Your task to perform on an android device: Go to eBay Image 0: 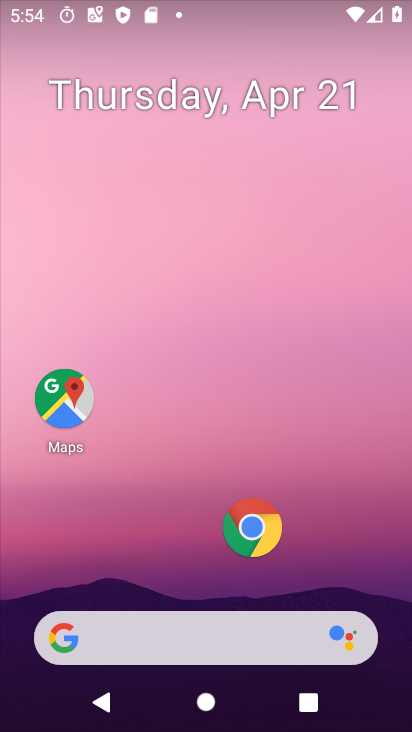
Step 0: click (173, 642)
Your task to perform on an android device: Go to eBay Image 1: 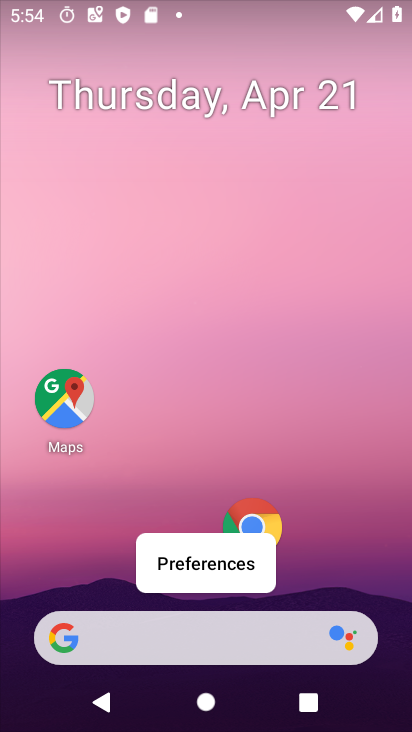
Step 1: click (262, 520)
Your task to perform on an android device: Go to eBay Image 2: 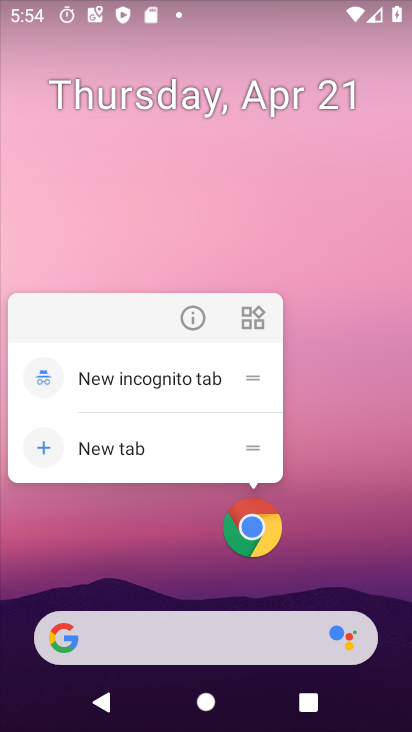
Step 2: click (254, 516)
Your task to perform on an android device: Go to eBay Image 3: 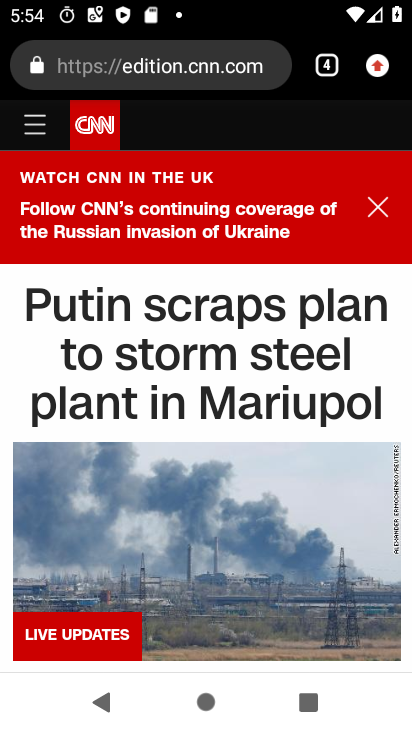
Step 3: click (330, 60)
Your task to perform on an android device: Go to eBay Image 4: 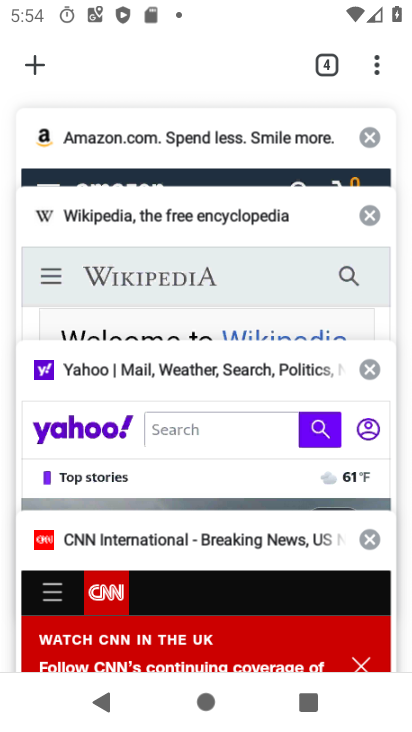
Step 4: click (41, 67)
Your task to perform on an android device: Go to eBay Image 5: 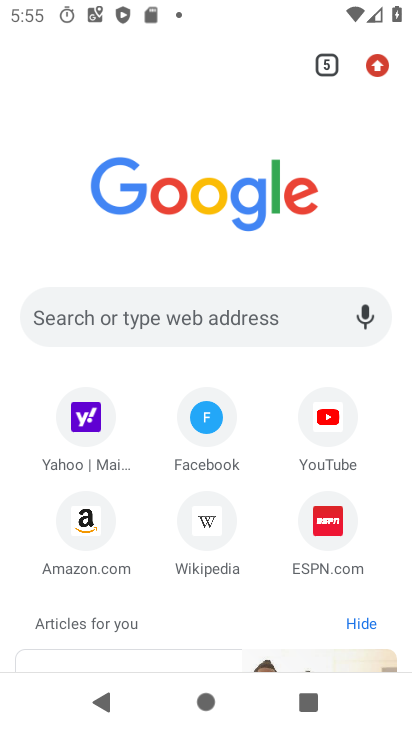
Step 5: click (163, 326)
Your task to perform on an android device: Go to eBay Image 6: 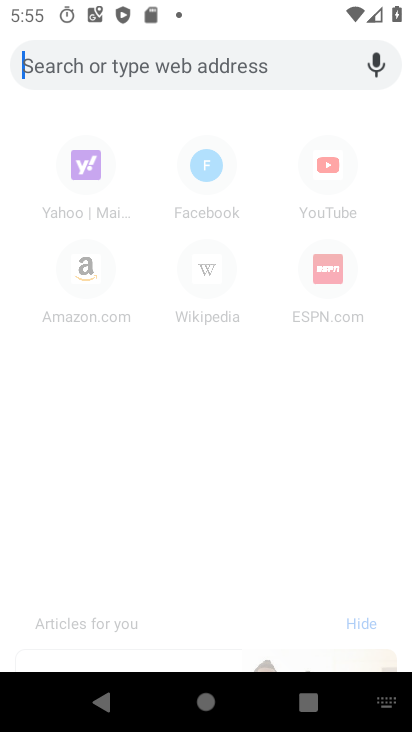
Step 6: type "ebay"
Your task to perform on an android device: Go to eBay Image 7: 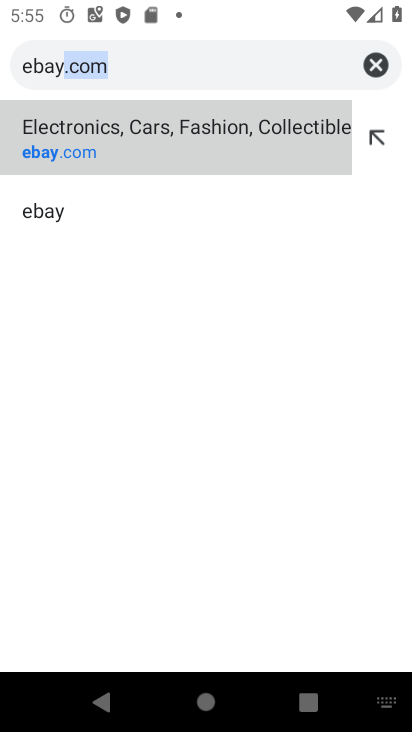
Step 7: click (214, 156)
Your task to perform on an android device: Go to eBay Image 8: 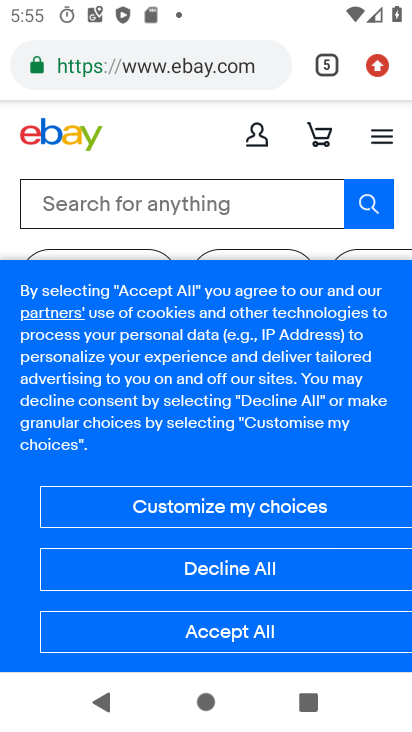
Step 8: task complete